Your task to perform on an android device: turn off location Image 0: 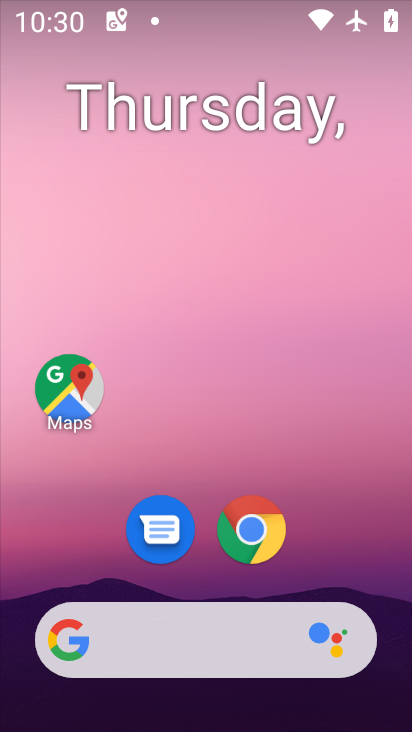
Step 0: drag from (199, 583) to (252, 43)
Your task to perform on an android device: turn off location Image 1: 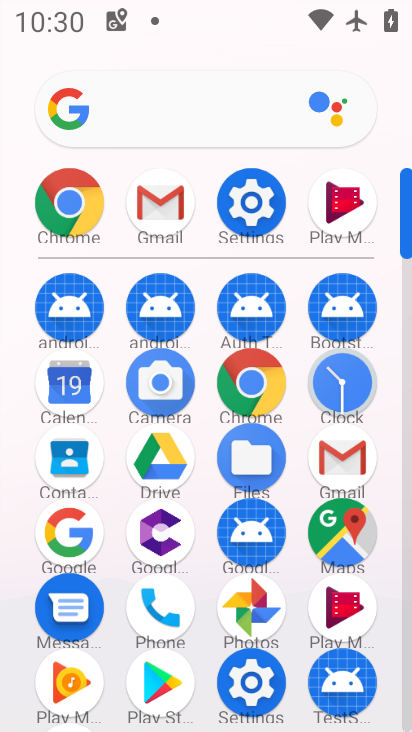
Step 1: click (241, 210)
Your task to perform on an android device: turn off location Image 2: 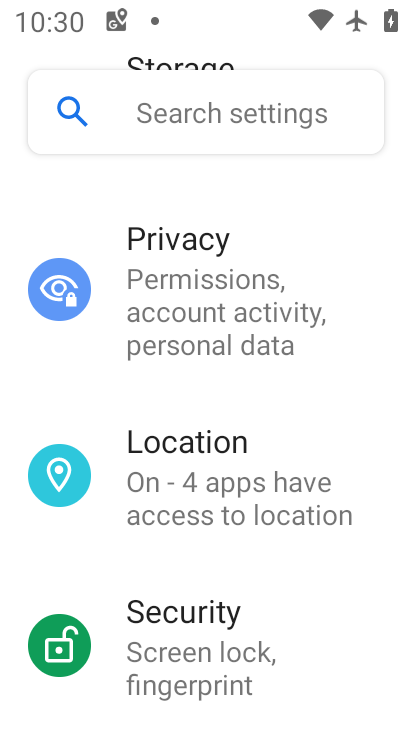
Step 2: click (239, 449)
Your task to perform on an android device: turn off location Image 3: 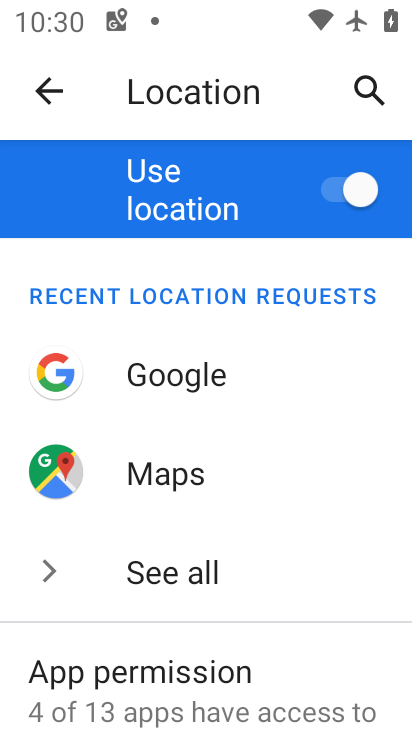
Step 3: click (338, 159)
Your task to perform on an android device: turn off location Image 4: 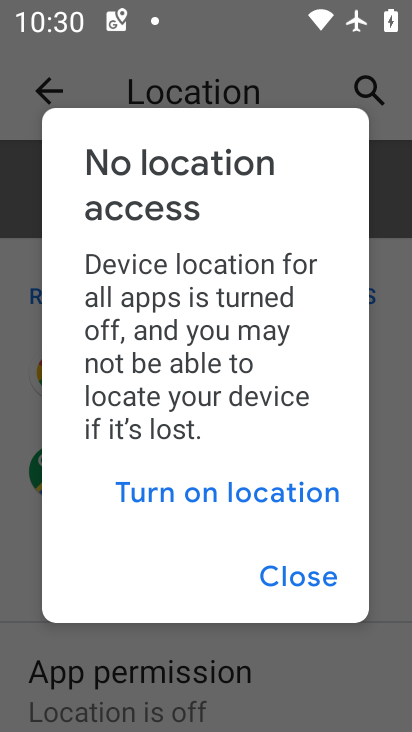
Step 4: task complete